Your task to perform on an android device: change the clock display to digital Image 0: 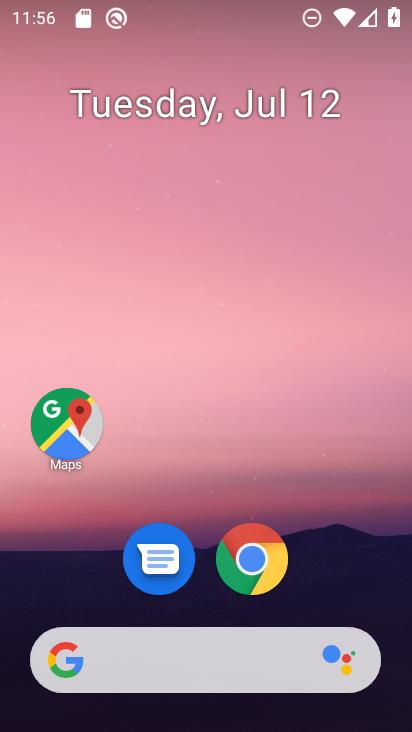
Step 0: drag from (232, 658) to (219, 232)
Your task to perform on an android device: change the clock display to digital Image 1: 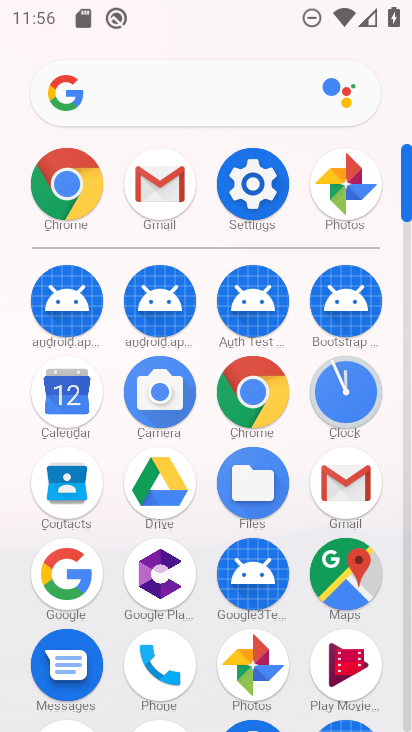
Step 1: drag from (209, 542) to (210, 371)
Your task to perform on an android device: change the clock display to digital Image 2: 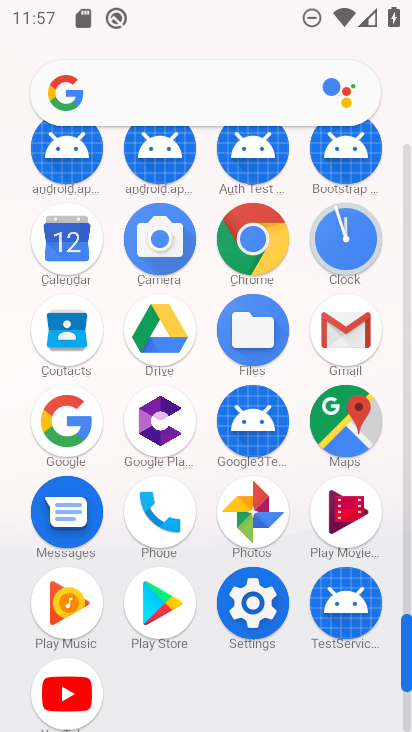
Step 2: click (346, 249)
Your task to perform on an android device: change the clock display to digital Image 3: 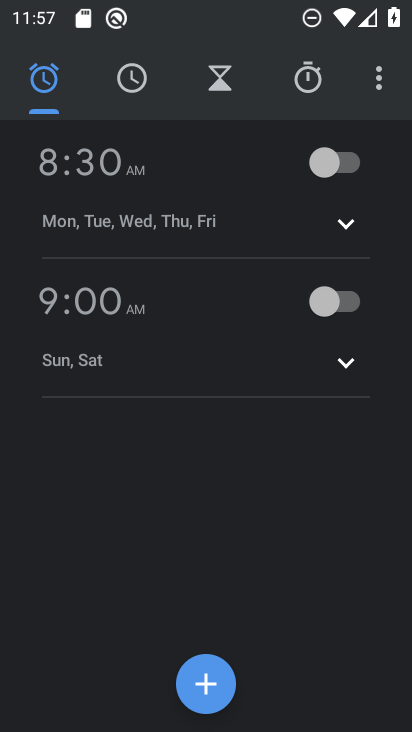
Step 3: click (383, 96)
Your task to perform on an android device: change the clock display to digital Image 4: 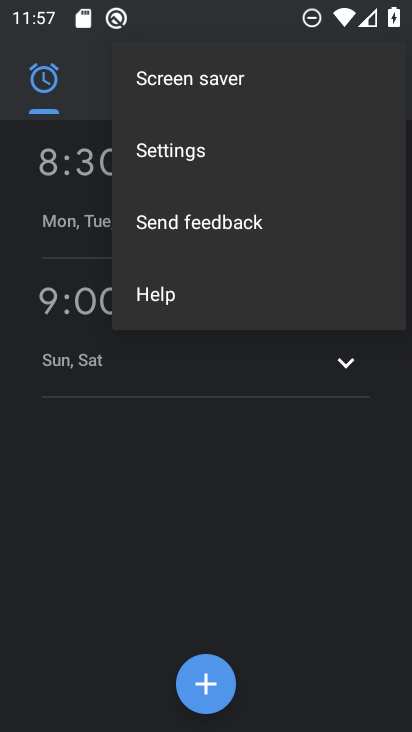
Step 4: click (192, 154)
Your task to perform on an android device: change the clock display to digital Image 5: 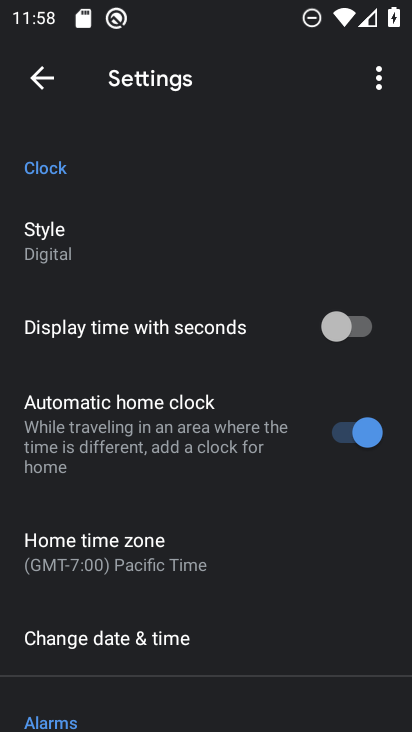
Step 5: task complete